Your task to perform on an android device: turn off airplane mode Image 0: 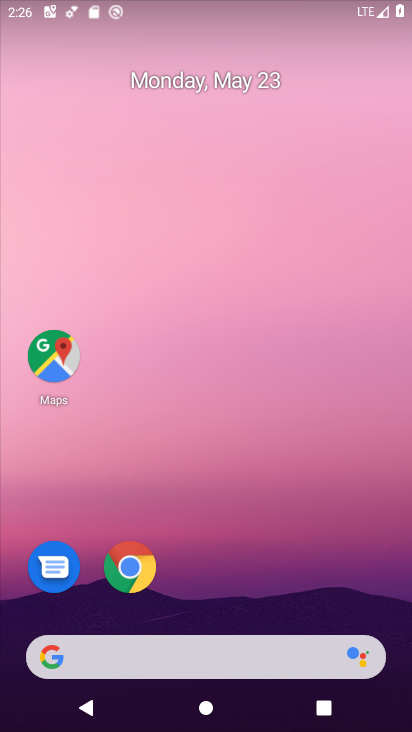
Step 0: drag from (261, 594) to (238, 216)
Your task to perform on an android device: turn off airplane mode Image 1: 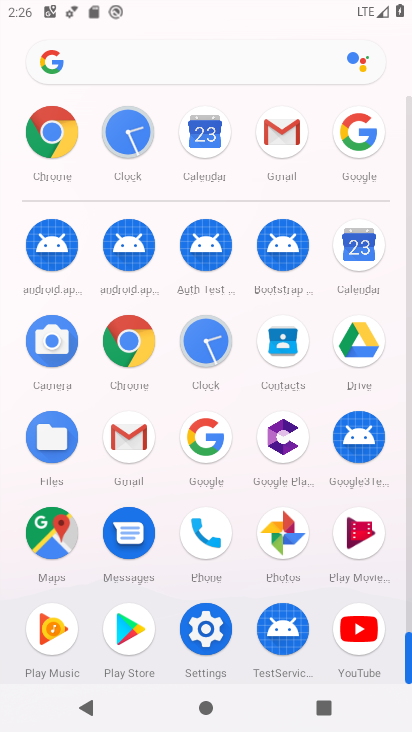
Step 1: click (193, 629)
Your task to perform on an android device: turn off airplane mode Image 2: 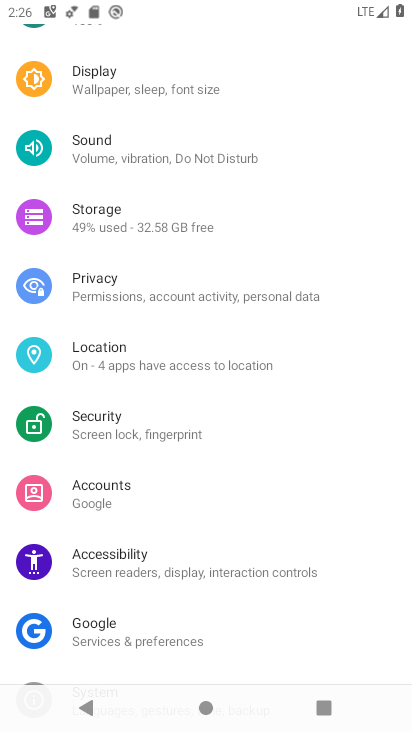
Step 2: drag from (191, 130) to (222, 631)
Your task to perform on an android device: turn off airplane mode Image 3: 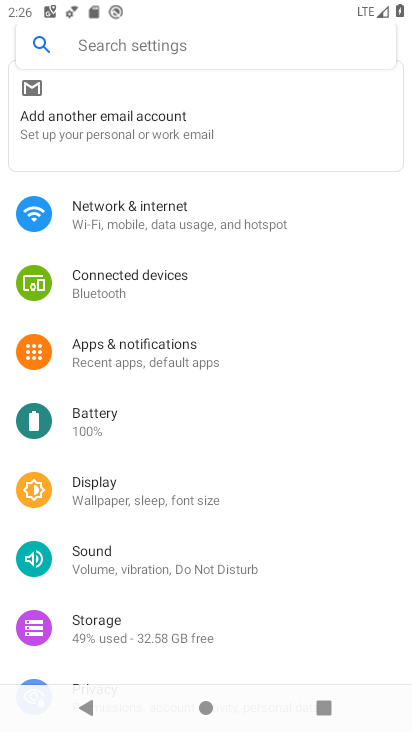
Step 3: click (182, 243)
Your task to perform on an android device: turn off airplane mode Image 4: 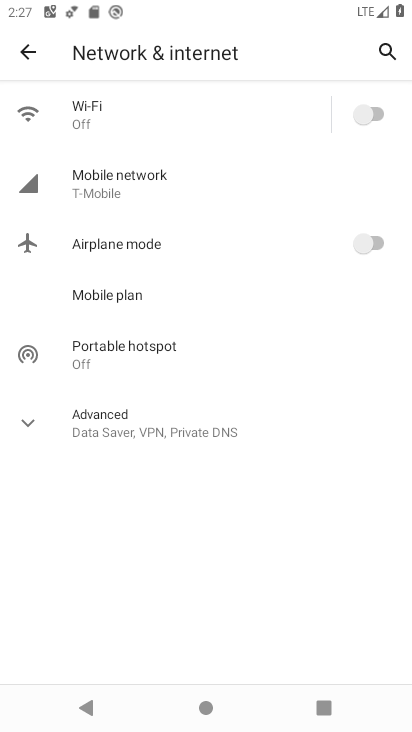
Step 4: task complete